Your task to perform on an android device: What is the speed of sound? Image 0: 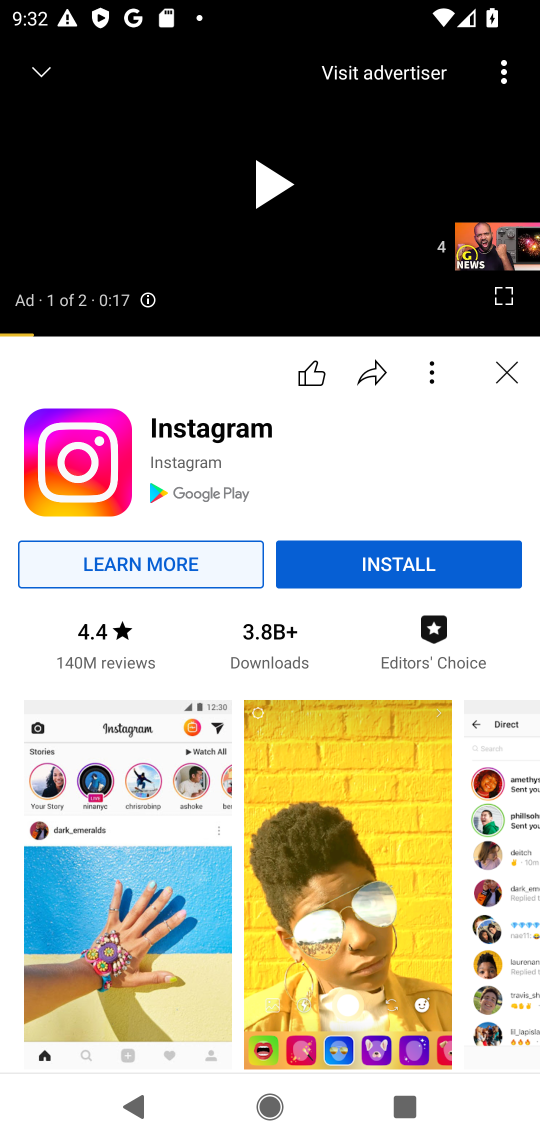
Step 0: press home button
Your task to perform on an android device: What is the speed of sound? Image 1: 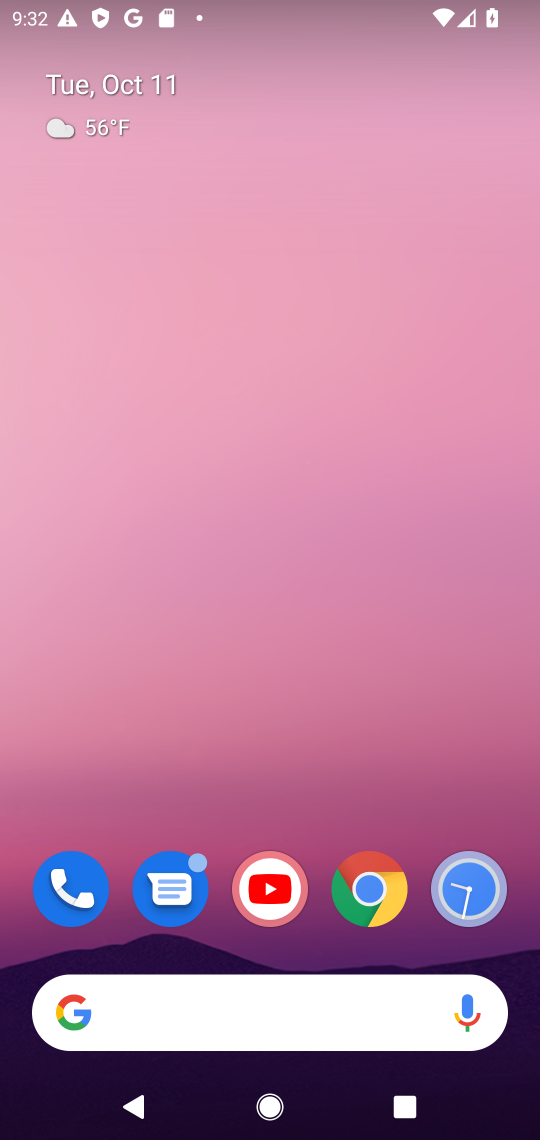
Step 1: click (176, 1029)
Your task to perform on an android device: What is the speed of sound? Image 2: 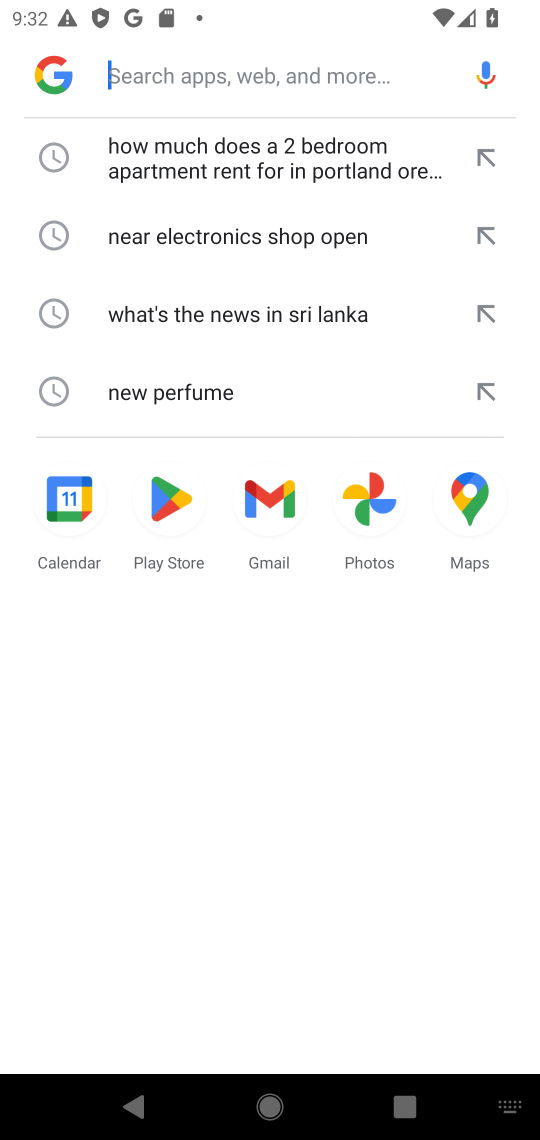
Step 2: click (164, 79)
Your task to perform on an android device: What is the speed of sound? Image 3: 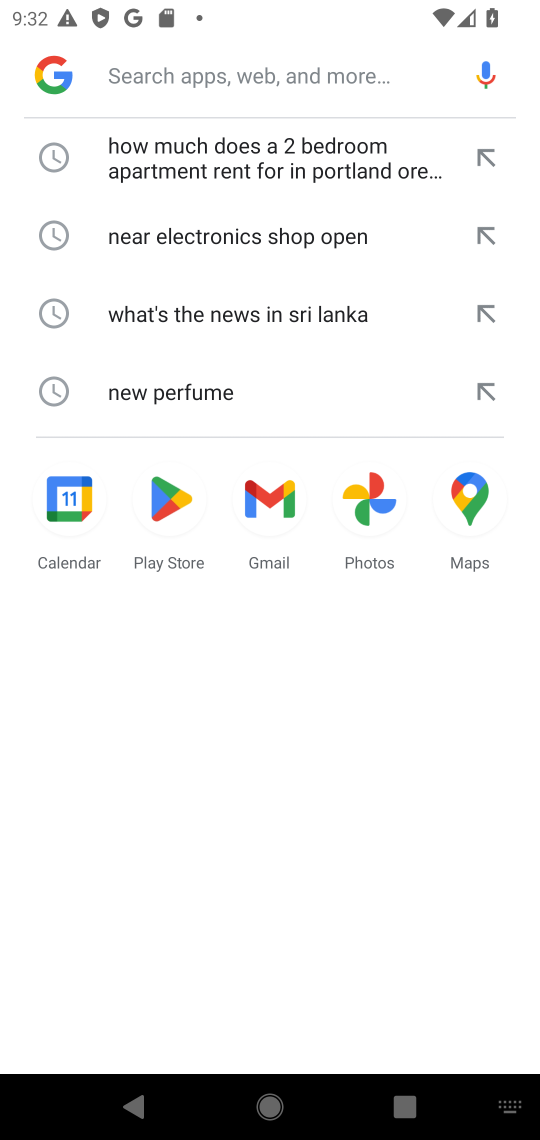
Step 3: type "What is the speed of sound?"
Your task to perform on an android device: What is the speed of sound? Image 4: 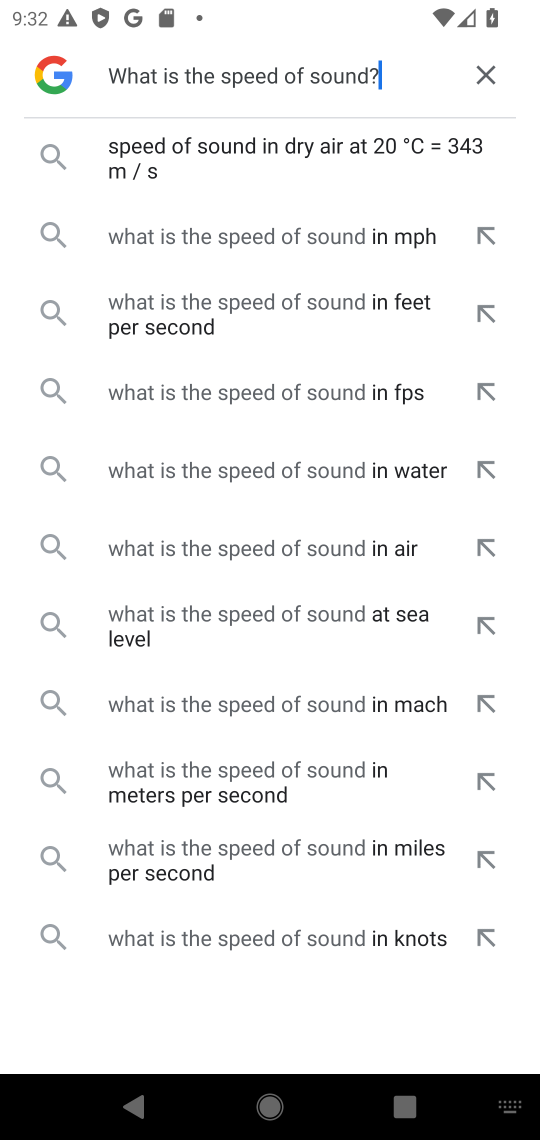
Step 4: click (236, 235)
Your task to perform on an android device: What is the speed of sound? Image 5: 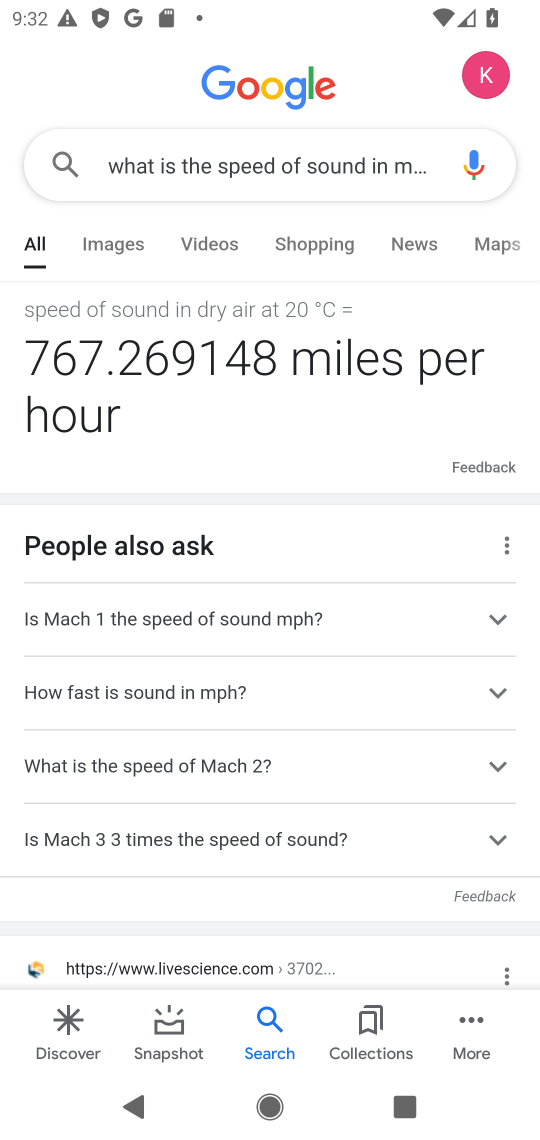
Step 5: task complete